Your task to perform on an android device: Go to eBay Image 0: 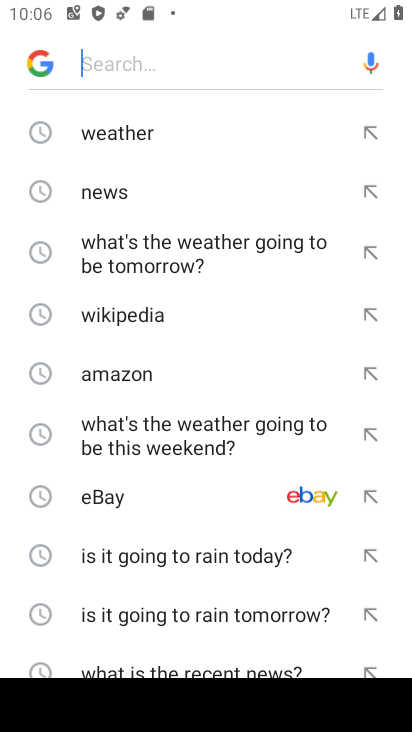
Step 0: press home button
Your task to perform on an android device: Go to eBay Image 1: 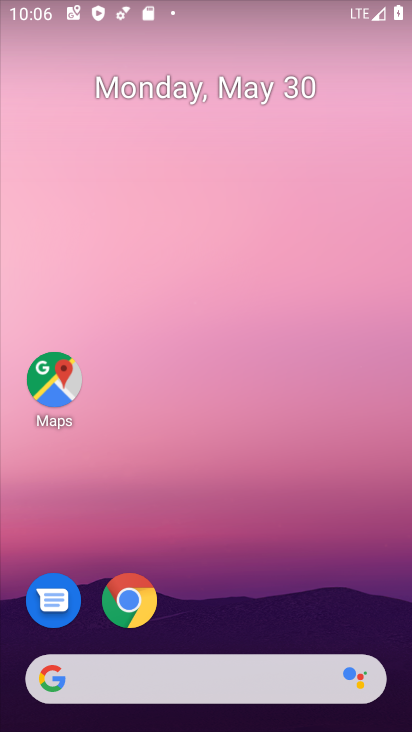
Step 1: click (118, 684)
Your task to perform on an android device: Go to eBay Image 2: 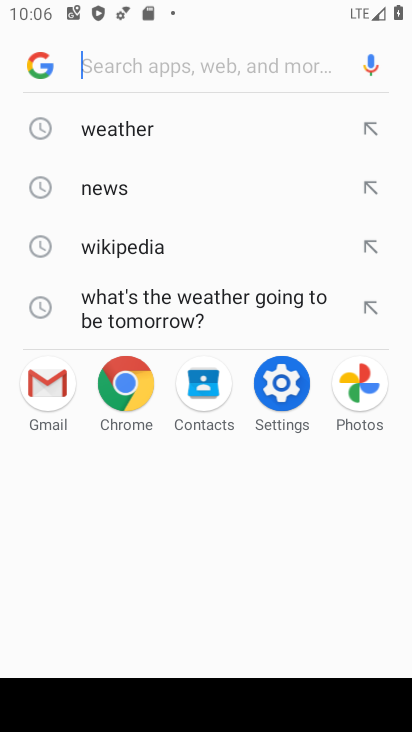
Step 2: type "eBay"
Your task to perform on an android device: Go to eBay Image 3: 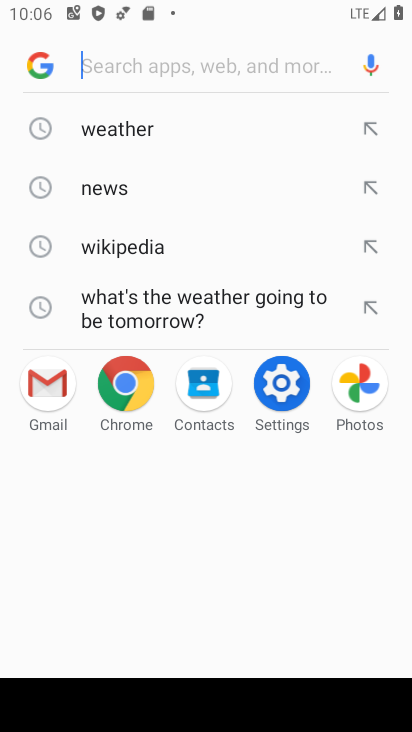
Step 3: click (134, 65)
Your task to perform on an android device: Go to eBay Image 4: 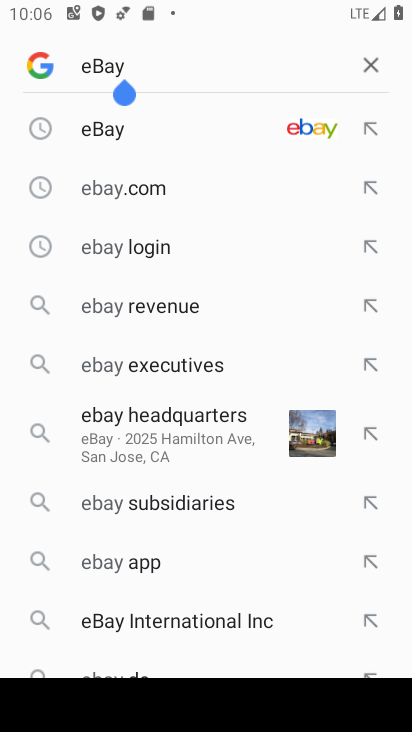
Step 4: click (121, 126)
Your task to perform on an android device: Go to eBay Image 5: 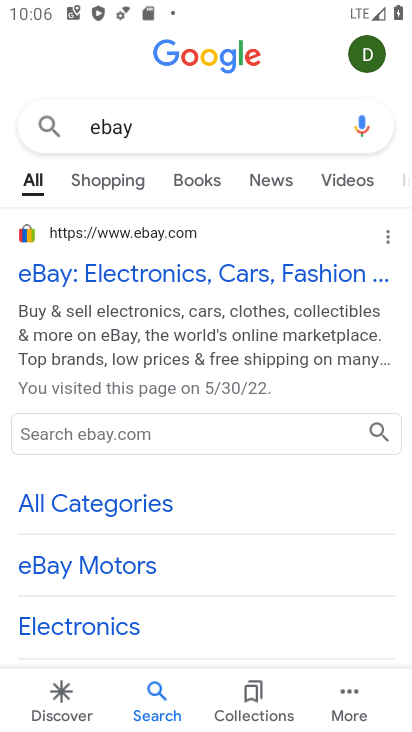
Step 5: click (103, 274)
Your task to perform on an android device: Go to eBay Image 6: 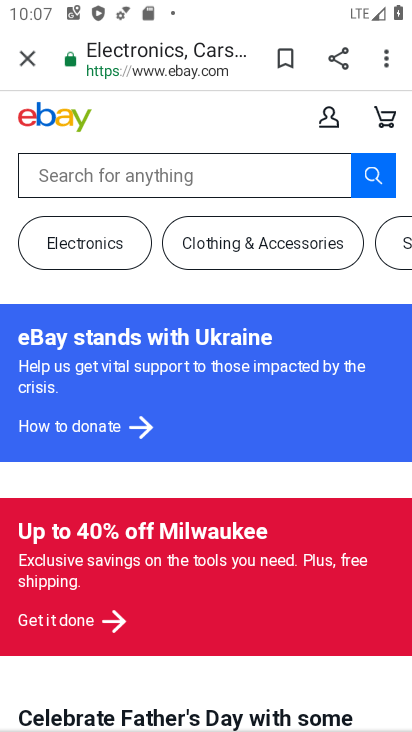
Step 6: task complete